Your task to perform on an android device: turn off location history Image 0: 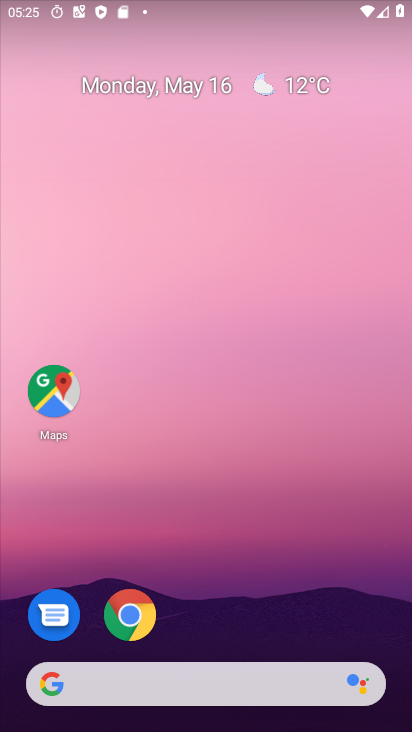
Step 0: drag from (318, 665) to (207, 29)
Your task to perform on an android device: turn off location history Image 1: 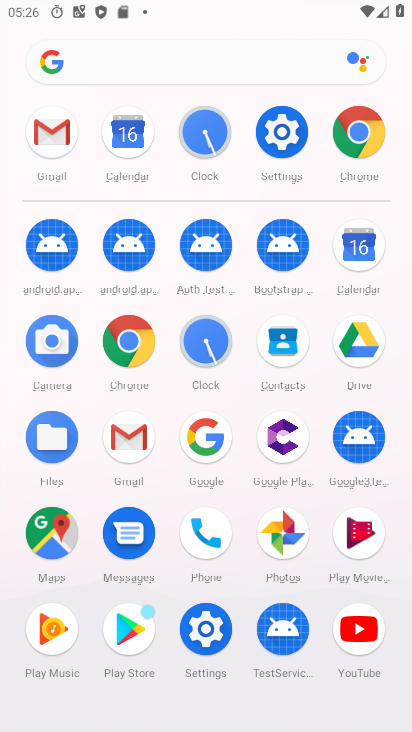
Step 1: click (58, 538)
Your task to perform on an android device: turn off location history Image 2: 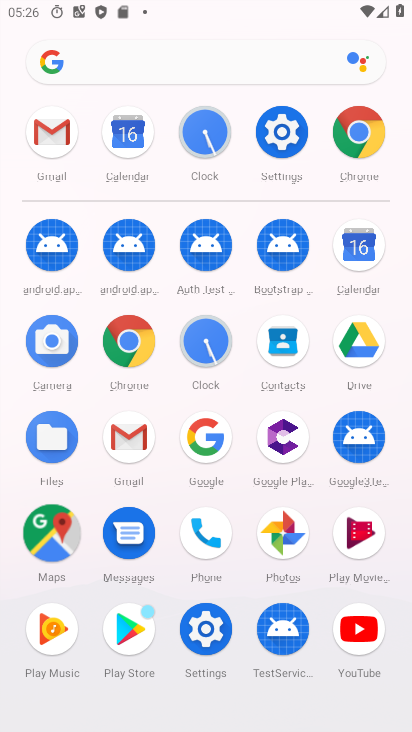
Step 2: click (57, 539)
Your task to perform on an android device: turn off location history Image 3: 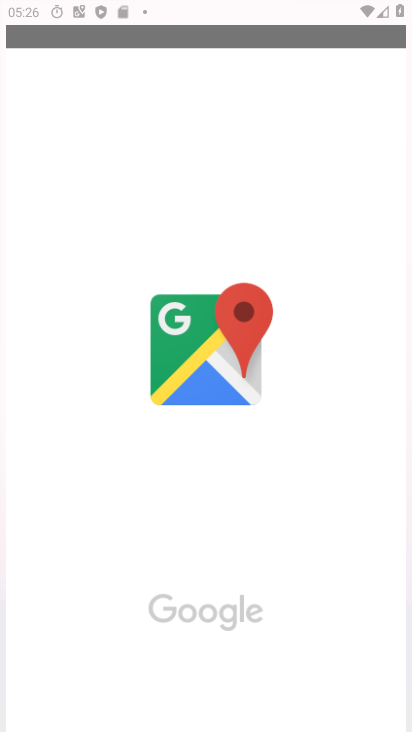
Step 3: click (57, 539)
Your task to perform on an android device: turn off location history Image 4: 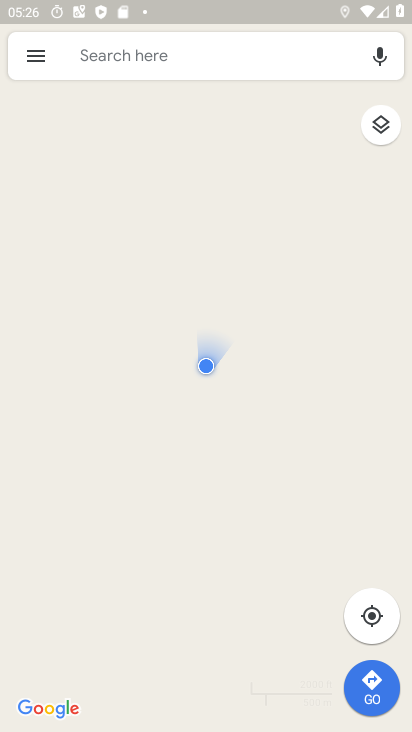
Step 4: click (27, 56)
Your task to perform on an android device: turn off location history Image 5: 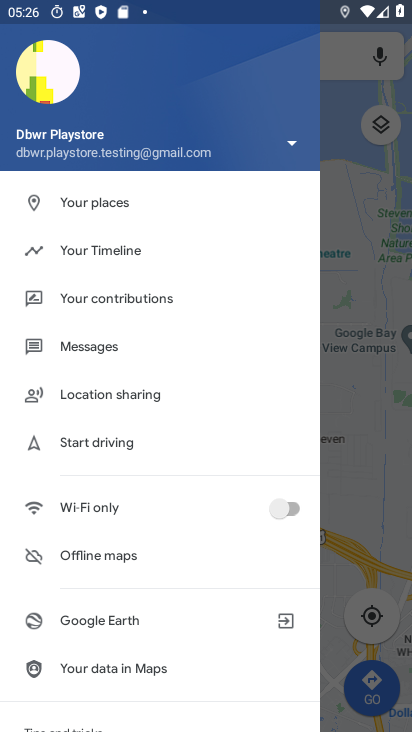
Step 5: click (100, 248)
Your task to perform on an android device: turn off location history Image 6: 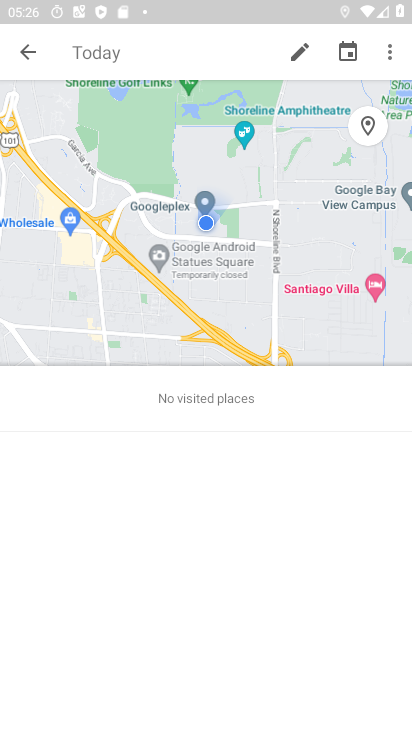
Step 6: click (396, 47)
Your task to perform on an android device: turn off location history Image 7: 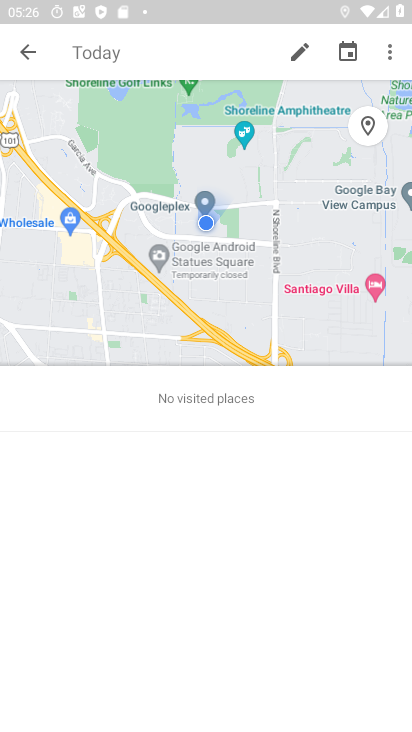
Step 7: drag from (396, 47) to (276, 330)
Your task to perform on an android device: turn off location history Image 8: 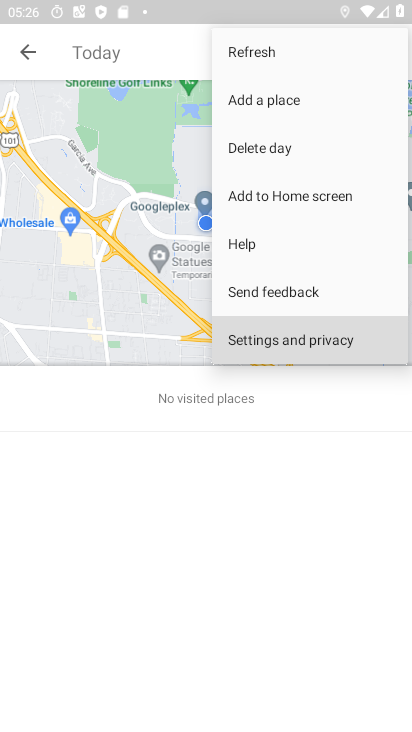
Step 8: click (277, 329)
Your task to perform on an android device: turn off location history Image 9: 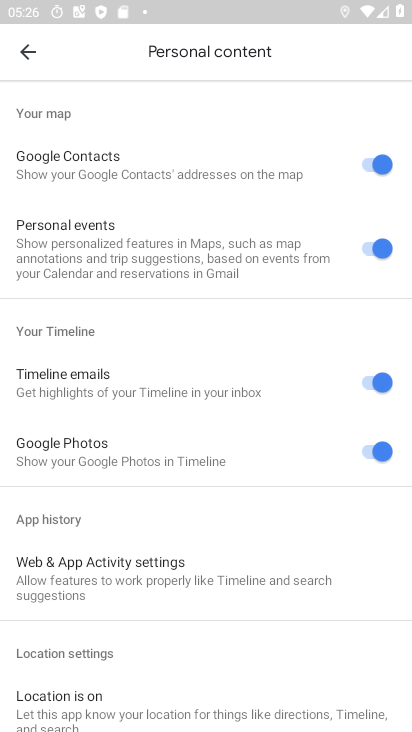
Step 9: drag from (99, 644) to (123, 143)
Your task to perform on an android device: turn off location history Image 10: 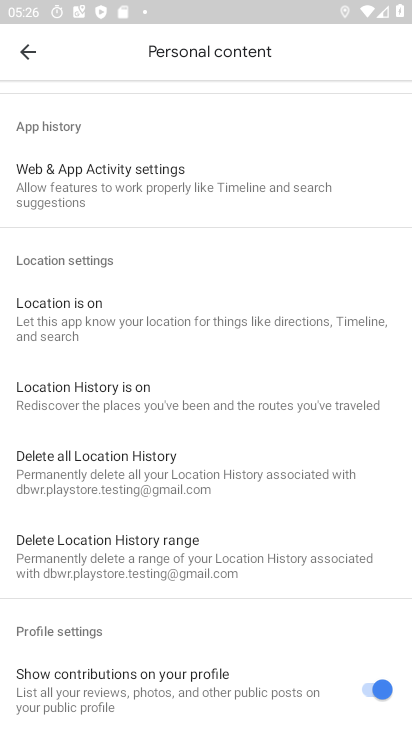
Step 10: click (91, 407)
Your task to perform on an android device: turn off location history Image 11: 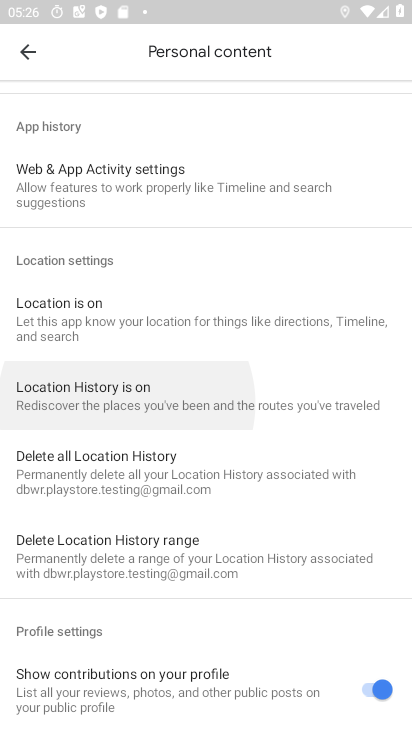
Step 11: click (91, 407)
Your task to perform on an android device: turn off location history Image 12: 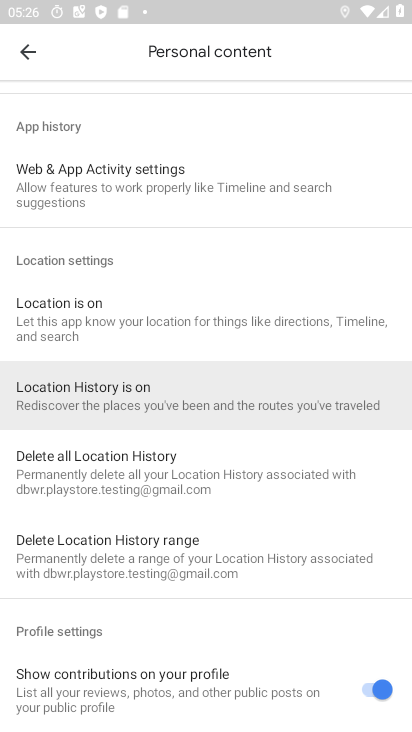
Step 12: click (91, 407)
Your task to perform on an android device: turn off location history Image 13: 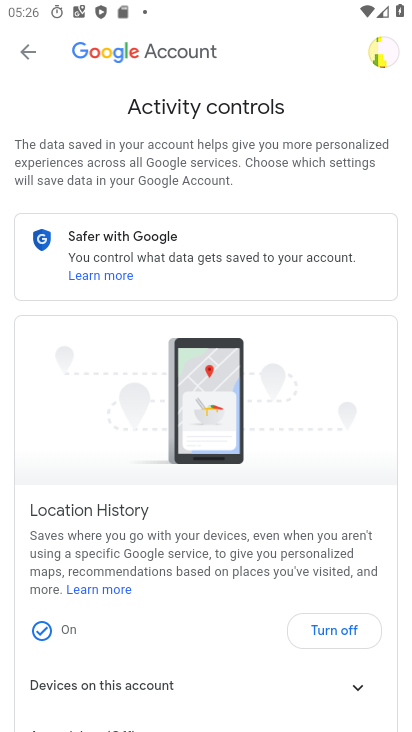
Step 13: click (334, 640)
Your task to perform on an android device: turn off location history Image 14: 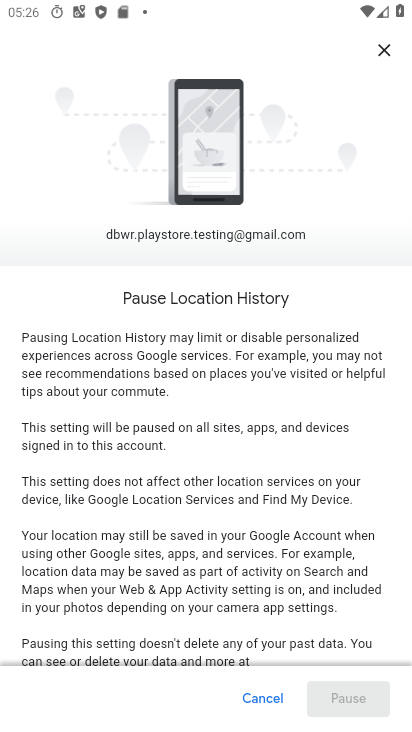
Step 14: task complete